Your task to perform on an android device: Open Google Maps and go to "Timeline" Image 0: 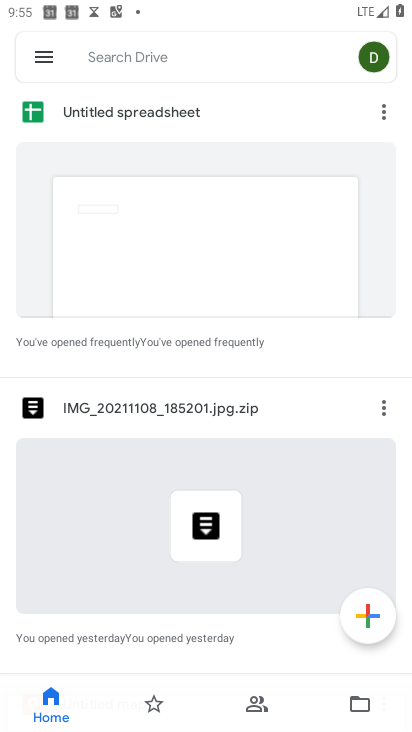
Step 0: press home button
Your task to perform on an android device: Open Google Maps and go to "Timeline" Image 1: 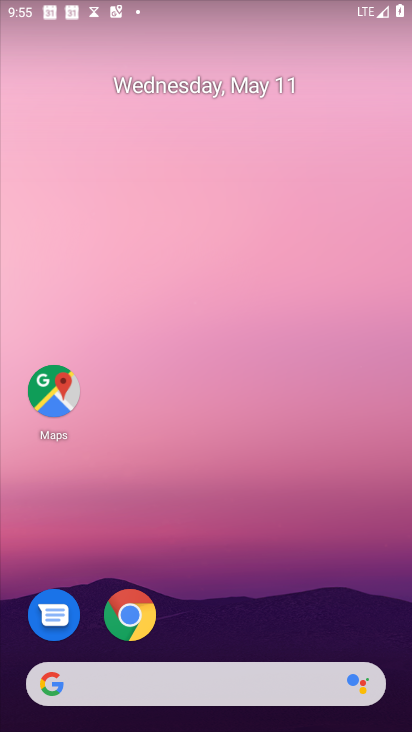
Step 1: click (58, 405)
Your task to perform on an android device: Open Google Maps and go to "Timeline" Image 2: 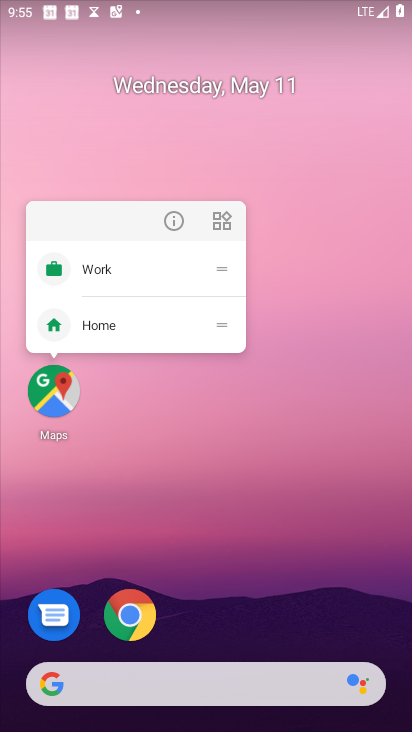
Step 2: click (229, 490)
Your task to perform on an android device: Open Google Maps and go to "Timeline" Image 3: 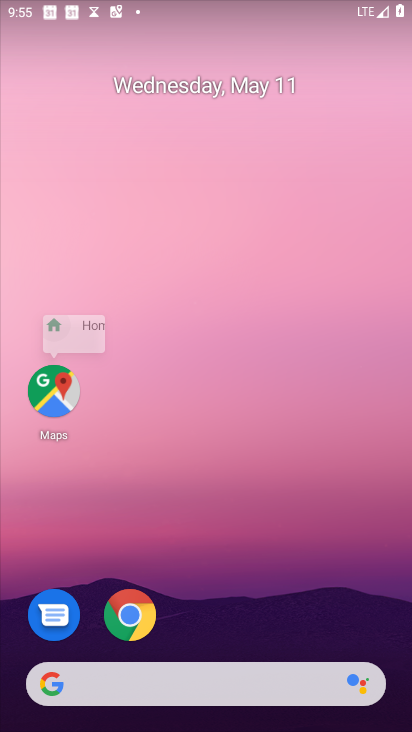
Step 3: drag from (214, 534) to (297, 171)
Your task to perform on an android device: Open Google Maps and go to "Timeline" Image 4: 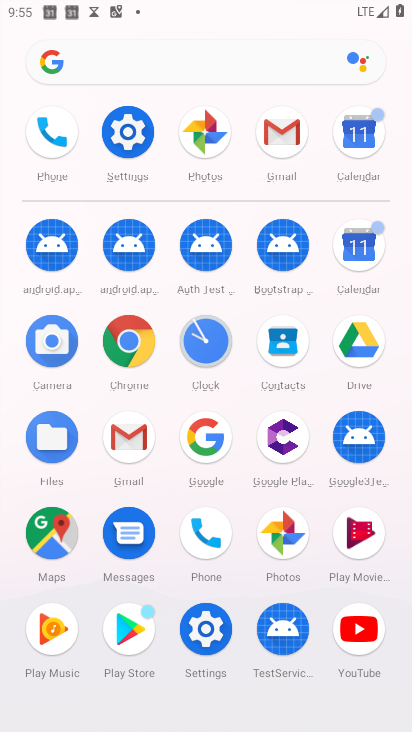
Step 4: click (60, 550)
Your task to perform on an android device: Open Google Maps and go to "Timeline" Image 5: 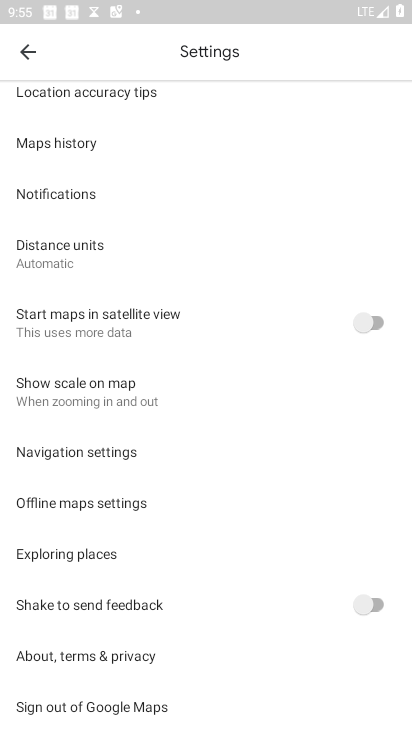
Step 5: click (14, 52)
Your task to perform on an android device: Open Google Maps and go to "Timeline" Image 6: 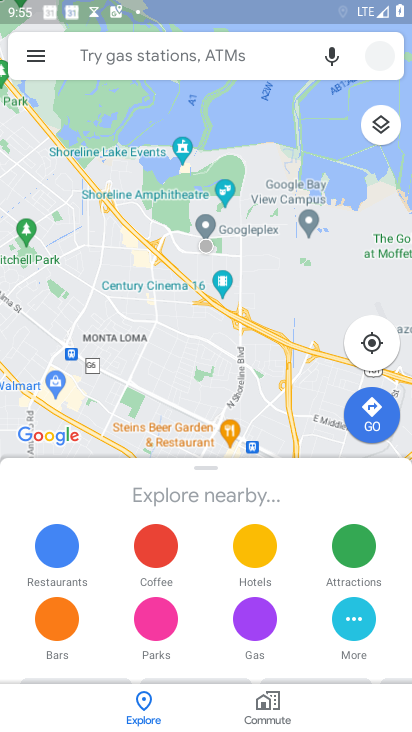
Step 6: click (26, 61)
Your task to perform on an android device: Open Google Maps and go to "Timeline" Image 7: 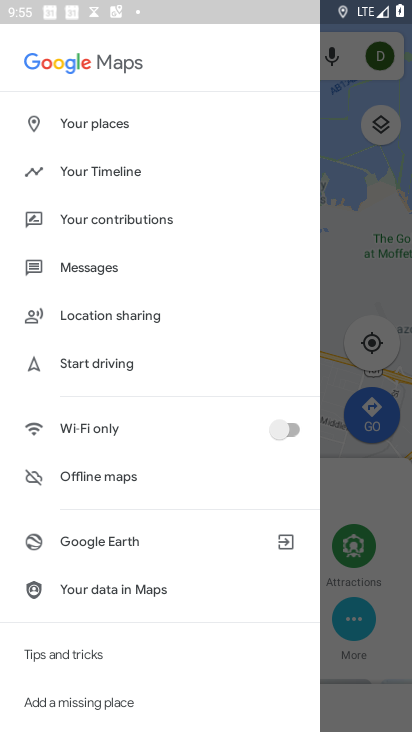
Step 7: click (129, 177)
Your task to perform on an android device: Open Google Maps and go to "Timeline" Image 8: 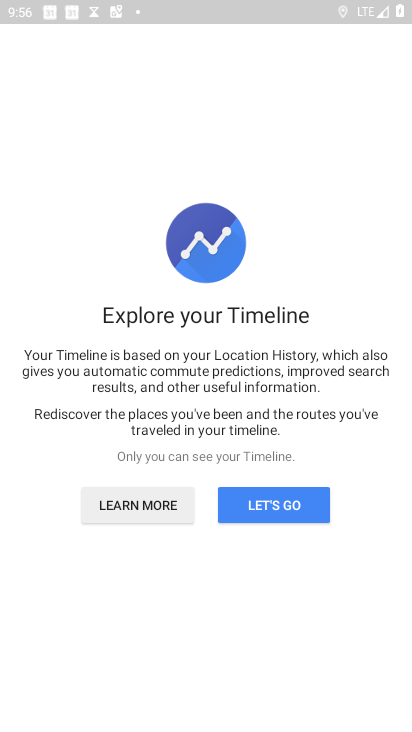
Step 8: click (257, 510)
Your task to perform on an android device: Open Google Maps and go to "Timeline" Image 9: 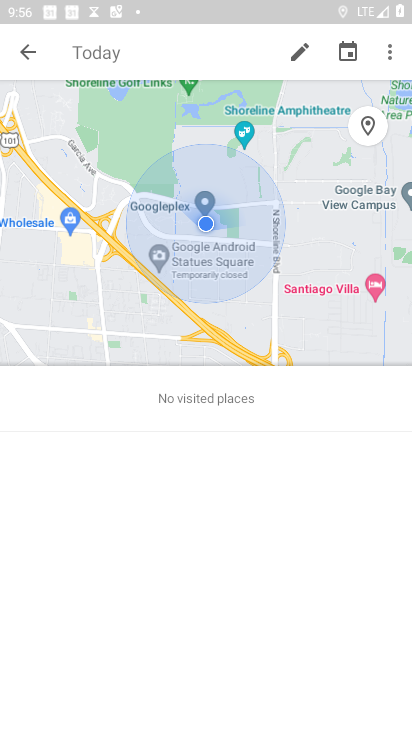
Step 9: task complete